Your task to perform on an android device: turn on airplane mode Image 0: 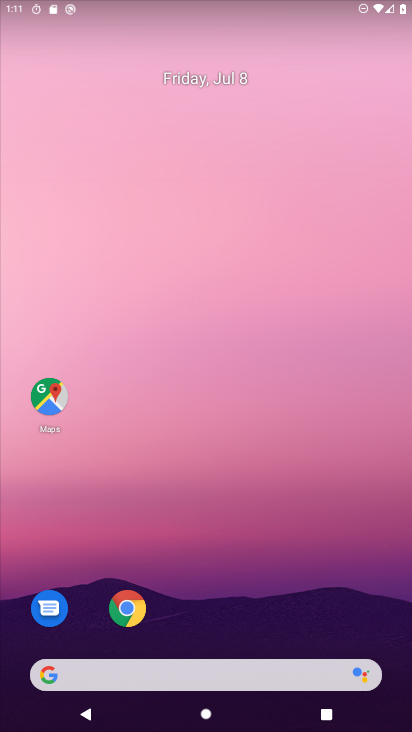
Step 0: drag from (247, 711) to (267, 120)
Your task to perform on an android device: turn on airplane mode Image 1: 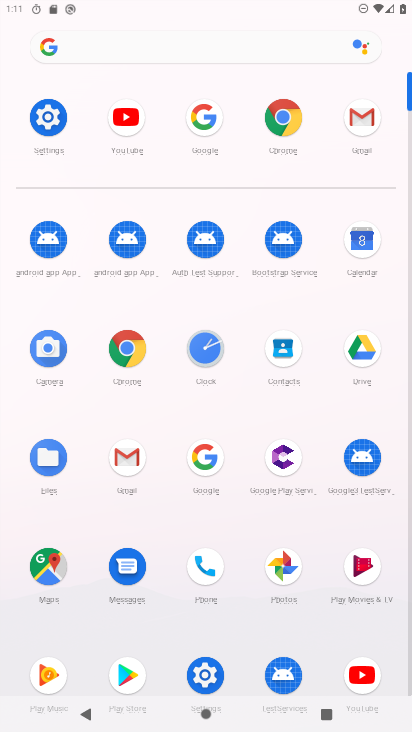
Step 1: click (50, 115)
Your task to perform on an android device: turn on airplane mode Image 2: 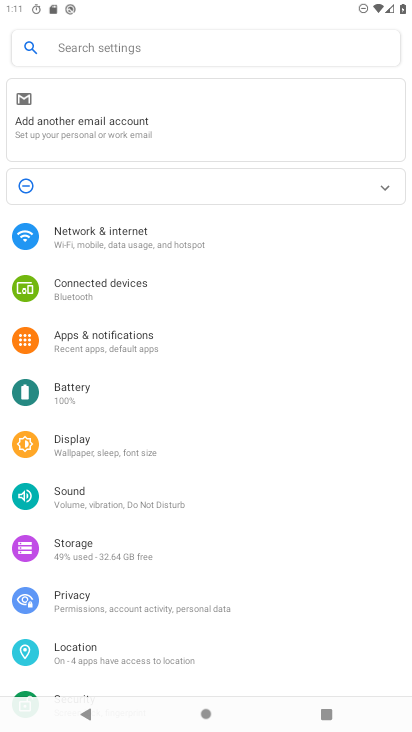
Step 2: click (99, 241)
Your task to perform on an android device: turn on airplane mode Image 3: 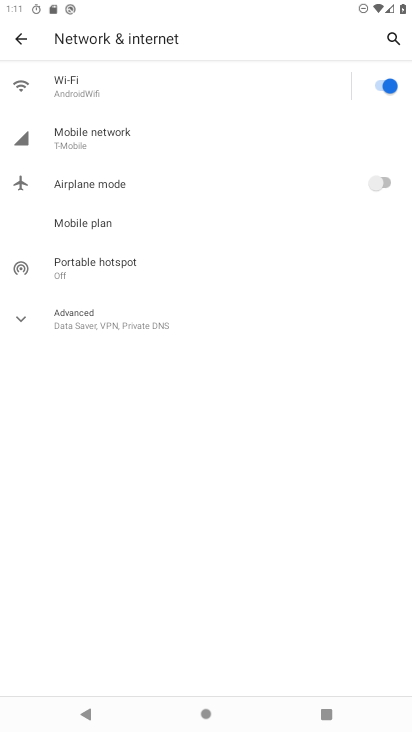
Step 3: click (387, 181)
Your task to perform on an android device: turn on airplane mode Image 4: 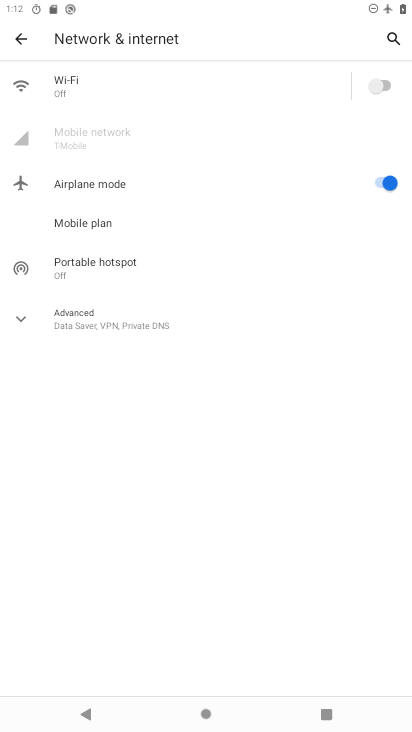
Step 4: task complete